Your task to perform on an android device: turn on sleep mode Image 0: 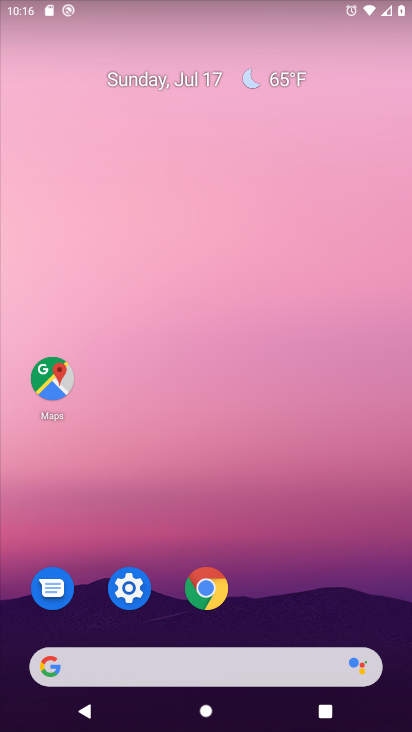
Step 0: drag from (253, 606) to (203, 230)
Your task to perform on an android device: turn on sleep mode Image 1: 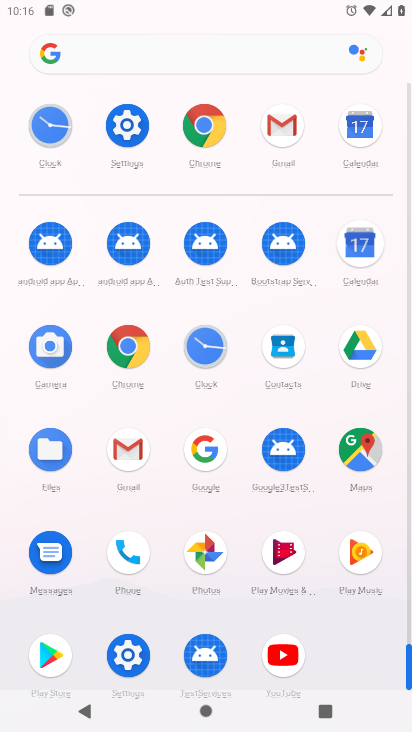
Step 1: click (126, 112)
Your task to perform on an android device: turn on sleep mode Image 2: 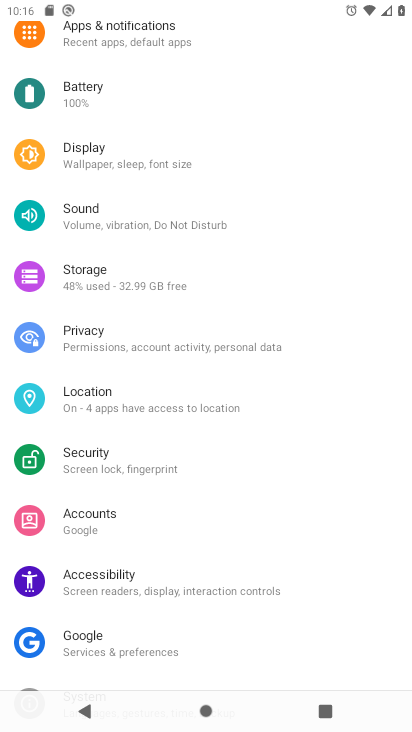
Step 2: click (127, 114)
Your task to perform on an android device: turn on sleep mode Image 3: 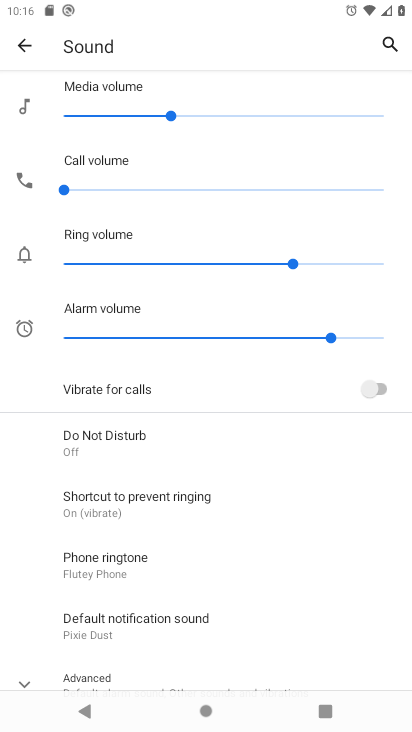
Step 3: click (21, 51)
Your task to perform on an android device: turn on sleep mode Image 4: 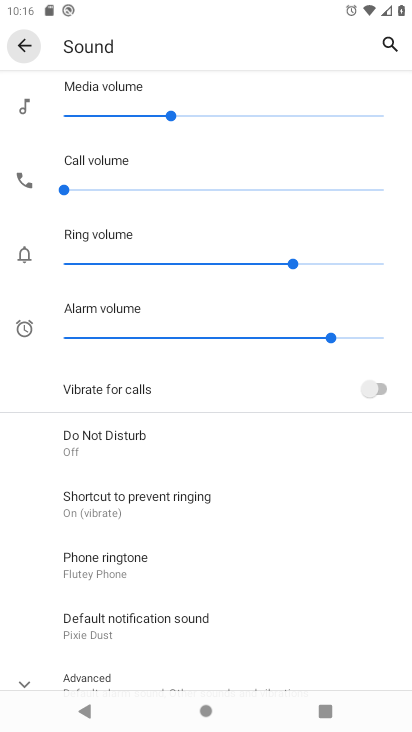
Step 4: click (21, 51)
Your task to perform on an android device: turn on sleep mode Image 5: 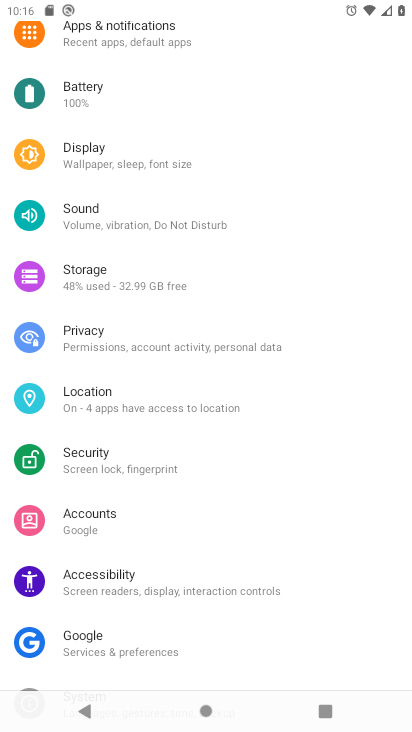
Step 5: click (72, 151)
Your task to perform on an android device: turn on sleep mode Image 6: 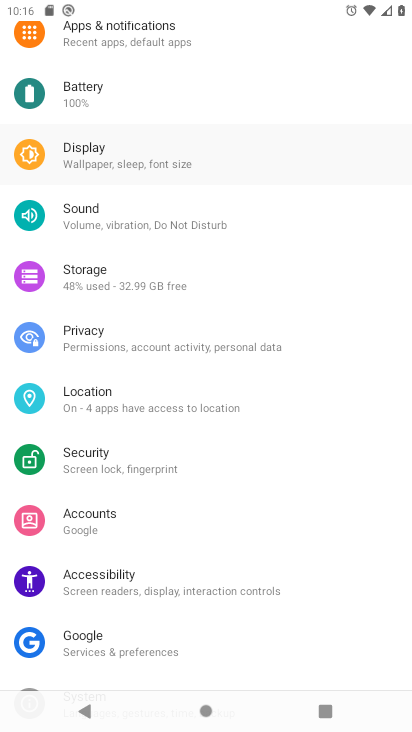
Step 6: click (76, 150)
Your task to perform on an android device: turn on sleep mode Image 7: 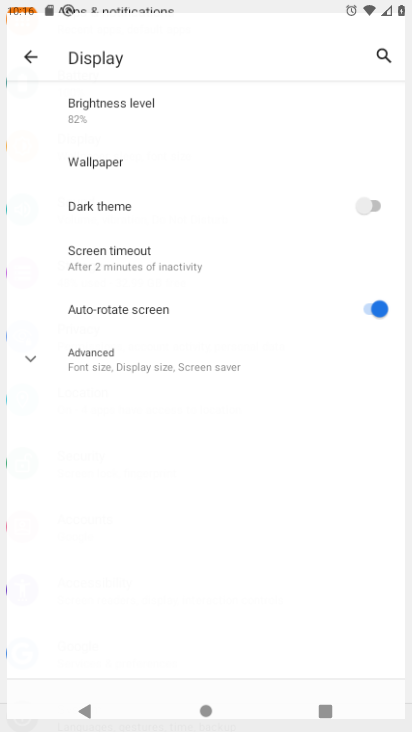
Step 7: click (87, 150)
Your task to perform on an android device: turn on sleep mode Image 8: 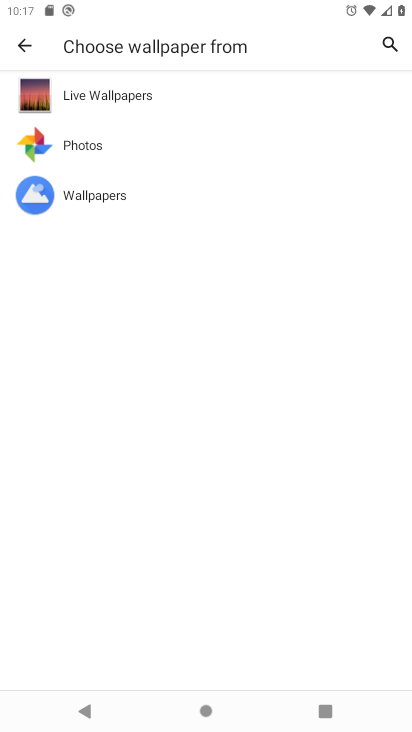
Step 8: click (31, 47)
Your task to perform on an android device: turn on sleep mode Image 9: 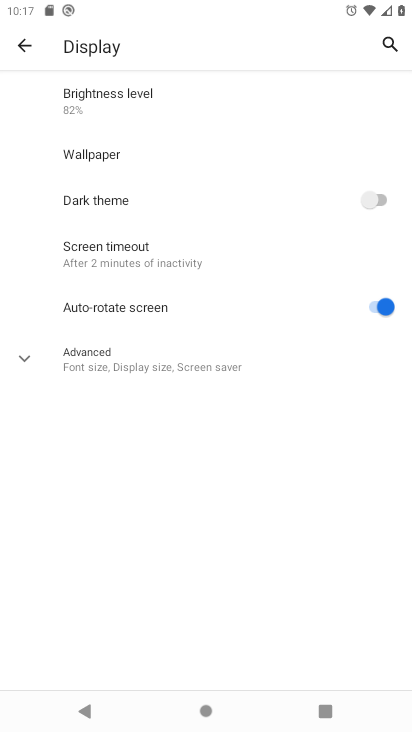
Step 9: click (89, 248)
Your task to perform on an android device: turn on sleep mode Image 10: 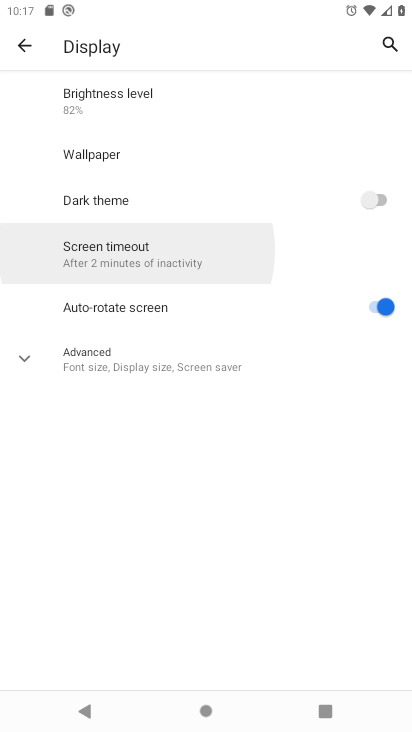
Step 10: click (90, 247)
Your task to perform on an android device: turn on sleep mode Image 11: 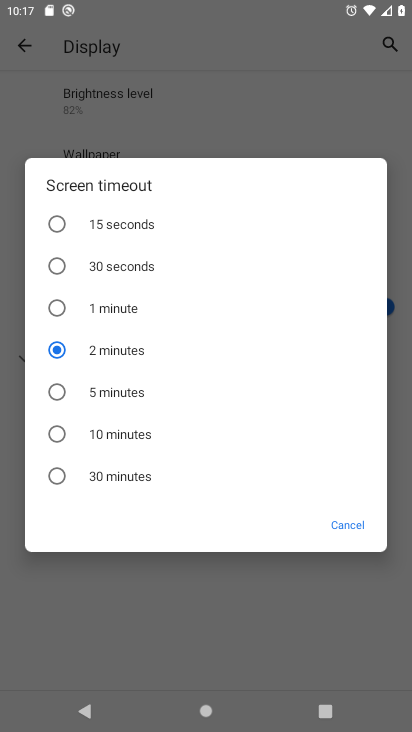
Step 11: task complete